Your task to perform on an android device: Go to Google maps Image 0: 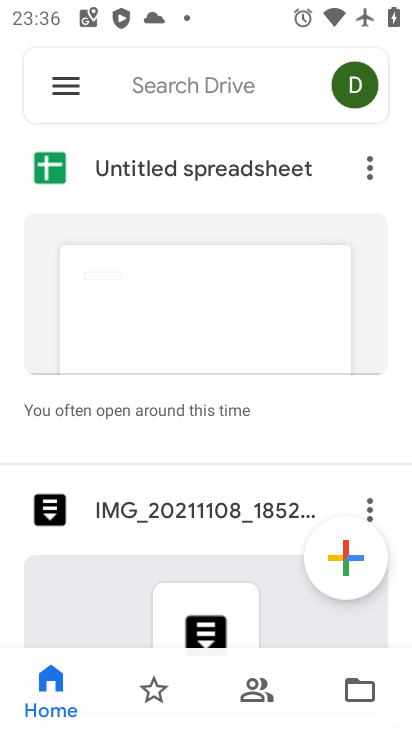
Step 0: press home button
Your task to perform on an android device: Go to Google maps Image 1: 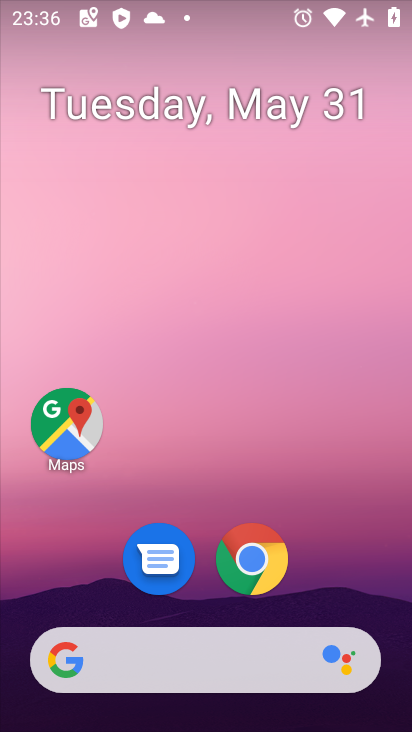
Step 1: click (71, 434)
Your task to perform on an android device: Go to Google maps Image 2: 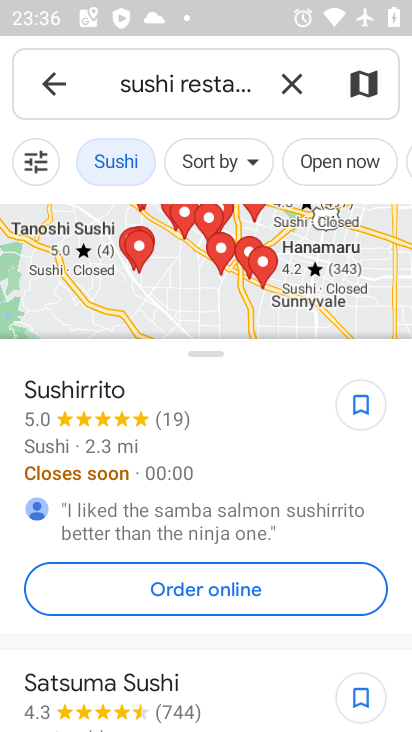
Step 2: task complete